Your task to perform on an android device: Go to internet settings Image 0: 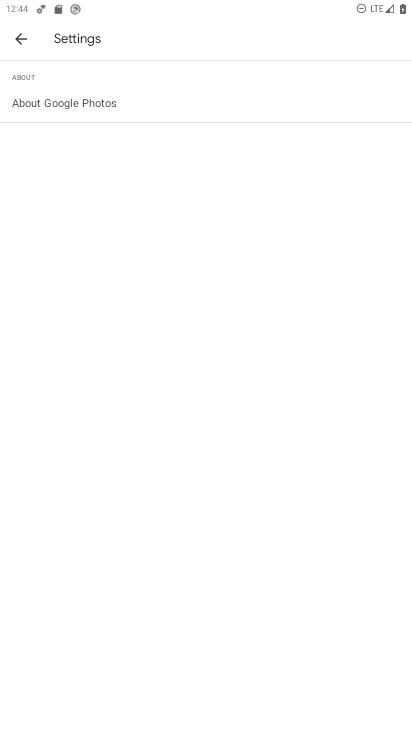
Step 0: drag from (275, 598) to (358, 229)
Your task to perform on an android device: Go to internet settings Image 1: 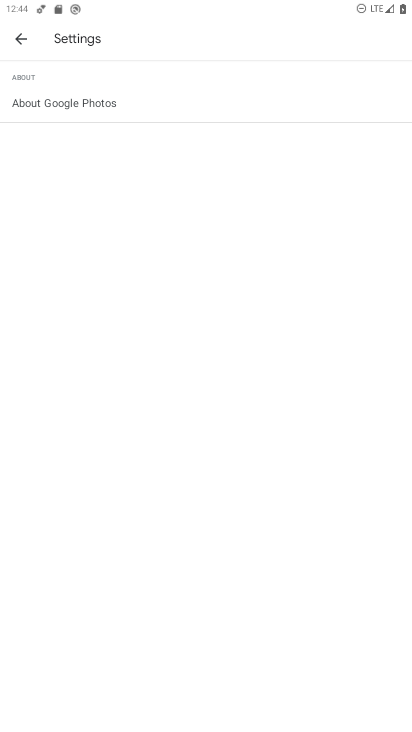
Step 1: press home button
Your task to perform on an android device: Go to internet settings Image 2: 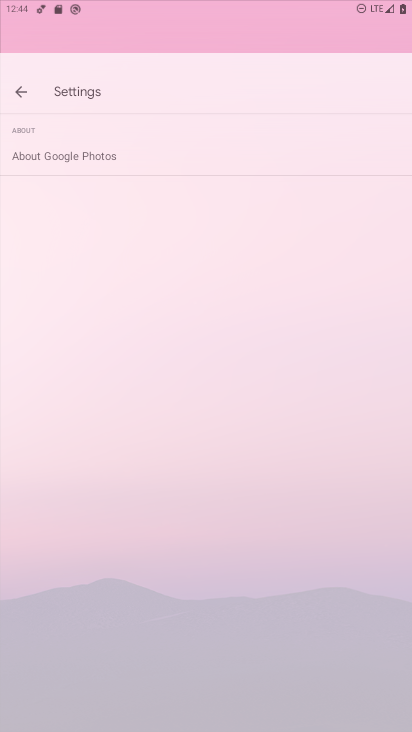
Step 2: drag from (87, 523) to (256, 133)
Your task to perform on an android device: Go to internet settings Image 3: 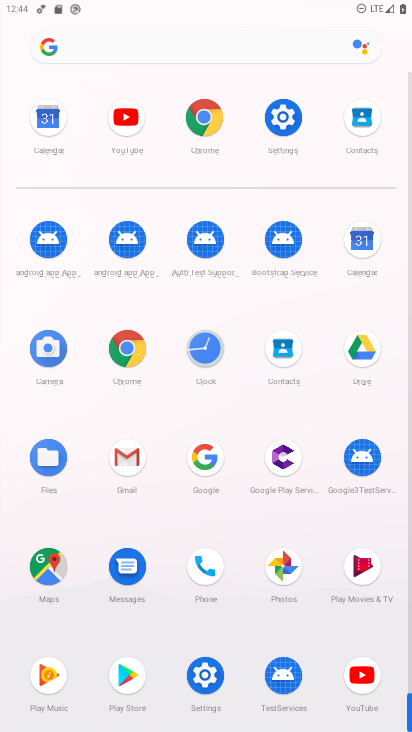
Step 3: click (287, 114)
Your task to perform on an android device: Go to internet settings Image 4: 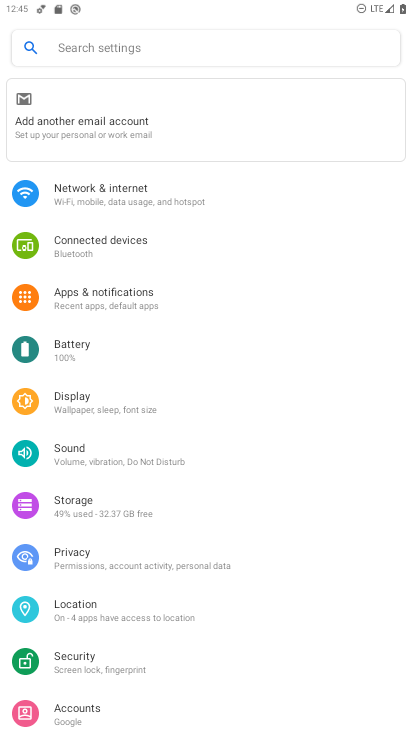
Step 4: click (97, 203)
Your task to perform on an android device: Go to internet settings Image 5: 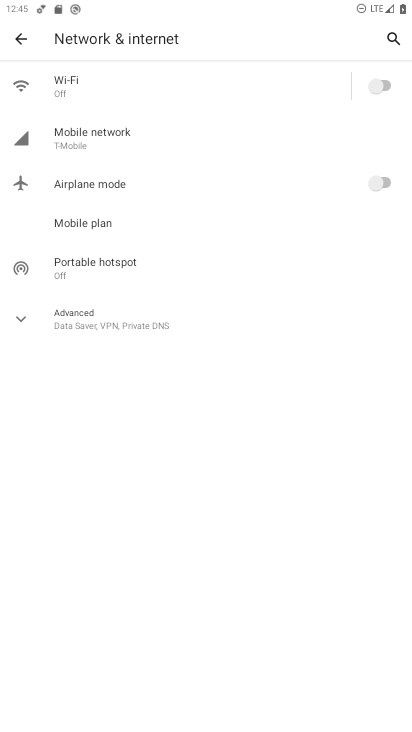
Step 5: task complete